Your task to perform on an android device: open a new tab in the chrome app Image 0: 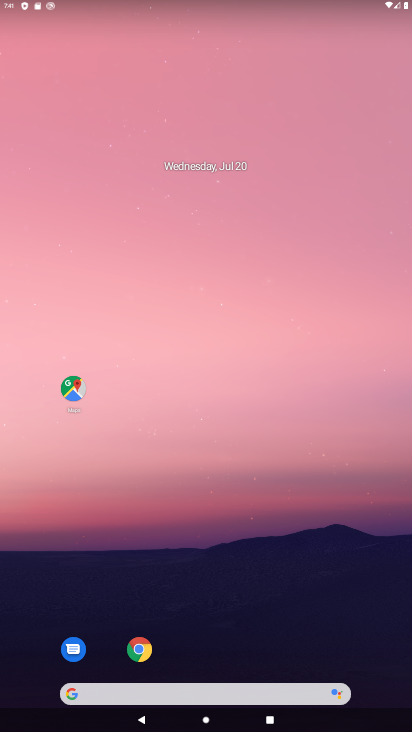
Step 0: click (150, 654)
Your task to perform on an android device: open a new tab in the chrome app Image 1: 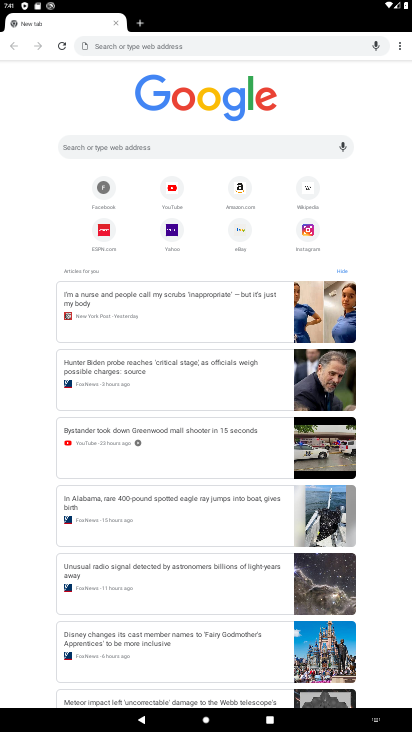
Step 1: click (135, 22)
Your task to perform on an android device: open a new tab in the chrome app Image 2: 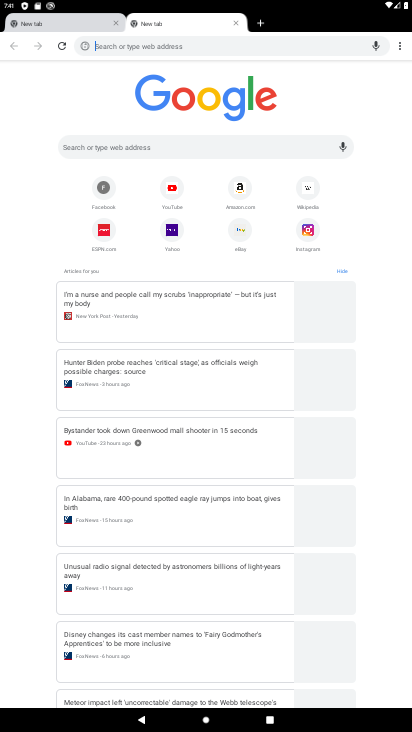
Step 2: task complete